Your task to perform on an android device: check out phone information Image 0: 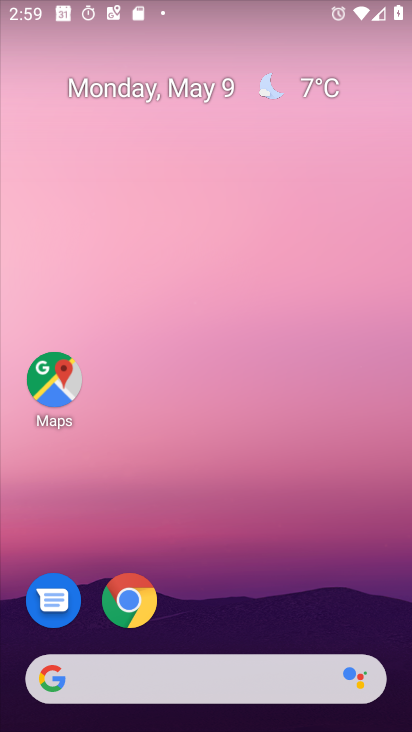
Step 0: drag from (185, 664) to (162, 96)
Your task to perform on an android device: check out phone information Image 1: 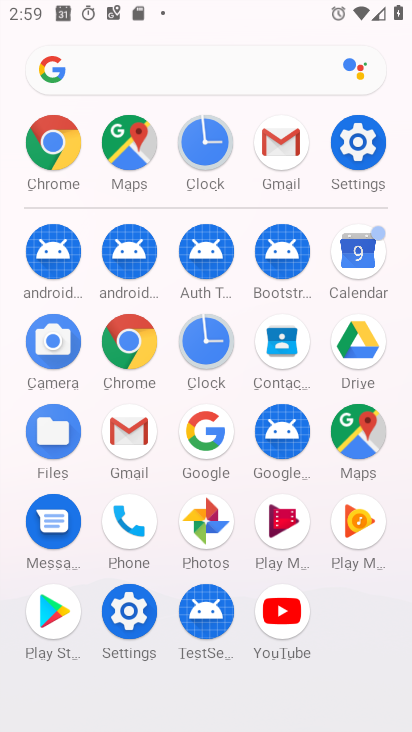
Step 1: click (135, 602)
Your task to perform on an android device: check out phone information Image 2: 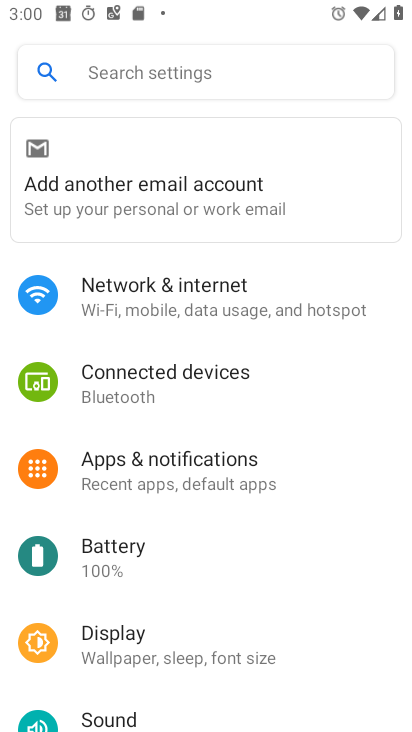
Step 2: drag from (178, 718) to (167, 467)
Your task to perform on an android device: check out phone information Image 3: 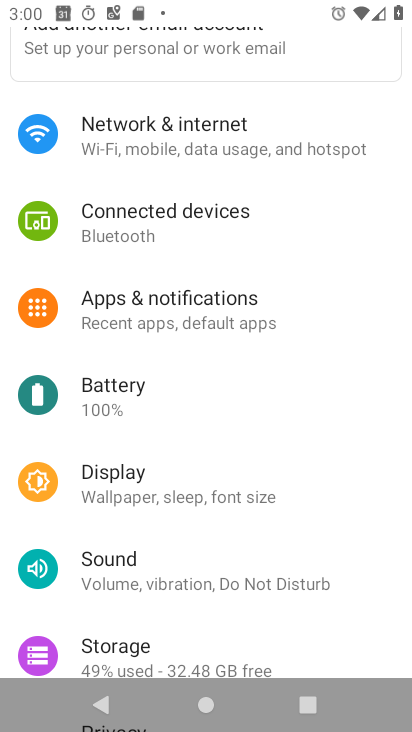
Step 3: drag from (195, 594) to (133, 101)
Your task to perform on an android device: check out phone information Image 4: 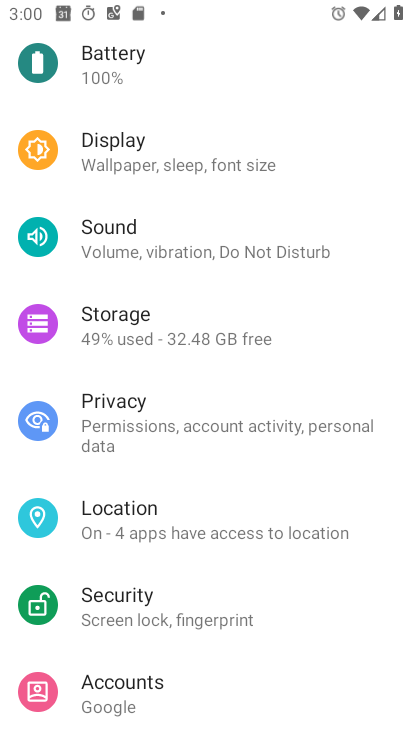
Step 4: drag from (325, 641) to (309, 233)
Your task to perform on an android device: check out phone information Image 5: 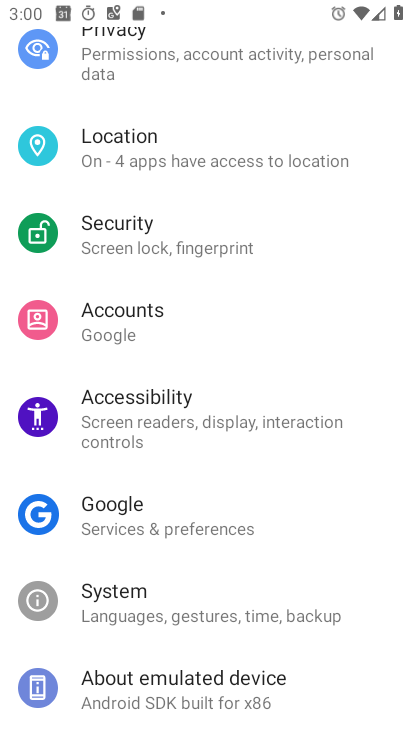
Step 5: drag from (217, 580) to (136, 117)
Your task to perform on an android device: check out phone information Image 6: 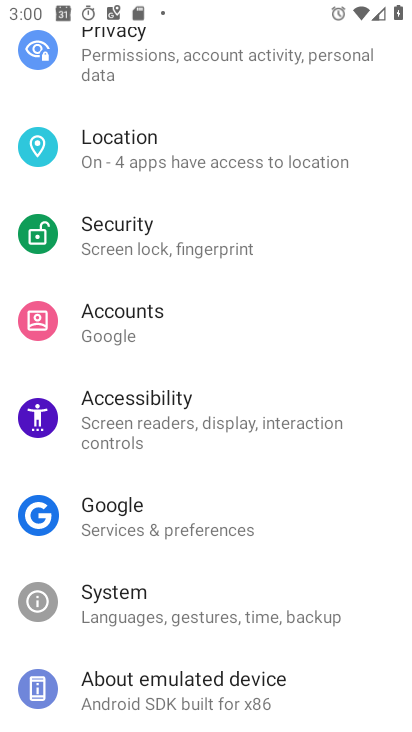
Step 6: click (188, 688)
Your task to perform on an android device: check out phone information Image 7: 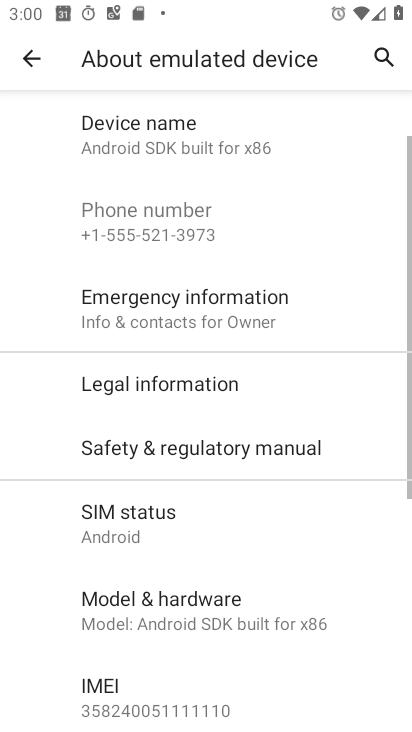
Step 7: click (188, 688)
Your task to perform on an android device: check out phone information Image 8: 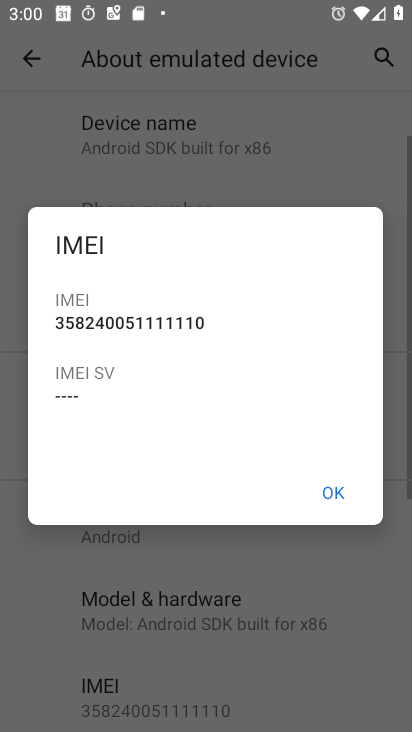
Step 8: click (329, 509)
Your task to perform on an android device: check out phone information Image 9: 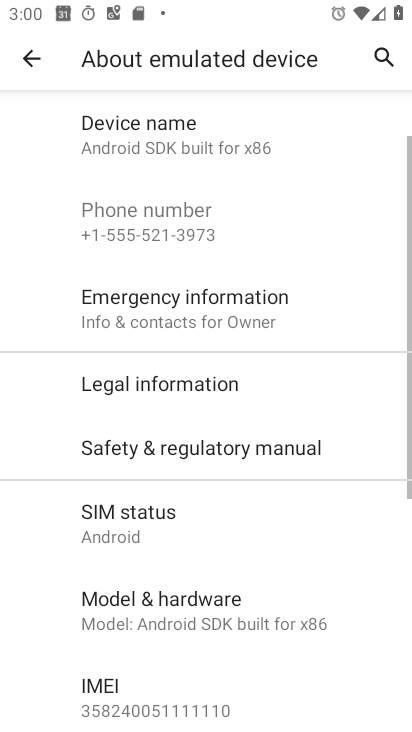
Step 9: task complete